Your task to perform on an android device: Go to Google maps Image 0: 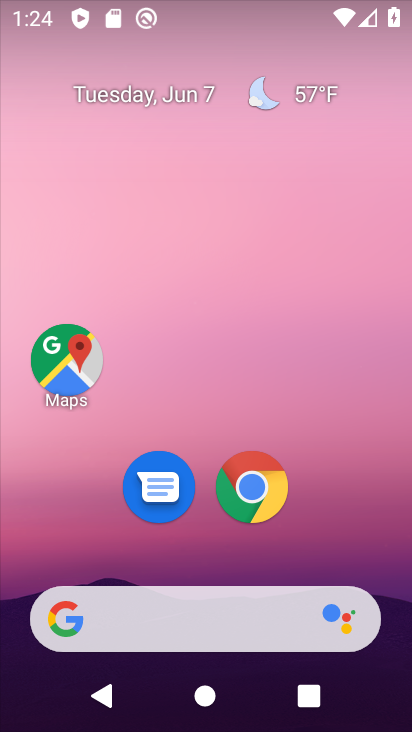
Step 0: click (65, 364)
Your task to perform on an android device: Go to Google maps Image 1: 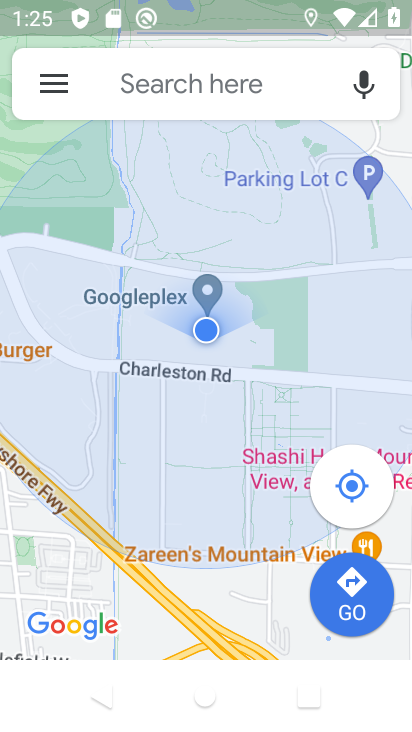
Step 1: task complete